Your task to perform on an android device: turn pop-ups off in chrome Image 0: 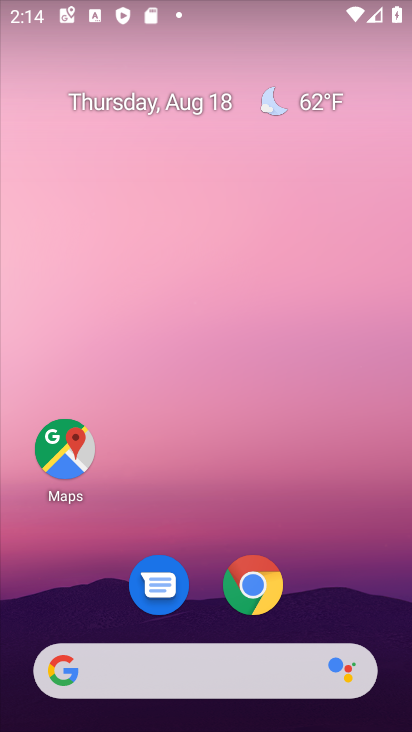
Step 0: click (254, 585)
Your task to perform on an android device: turn pop-ups off in chrome Image 1: 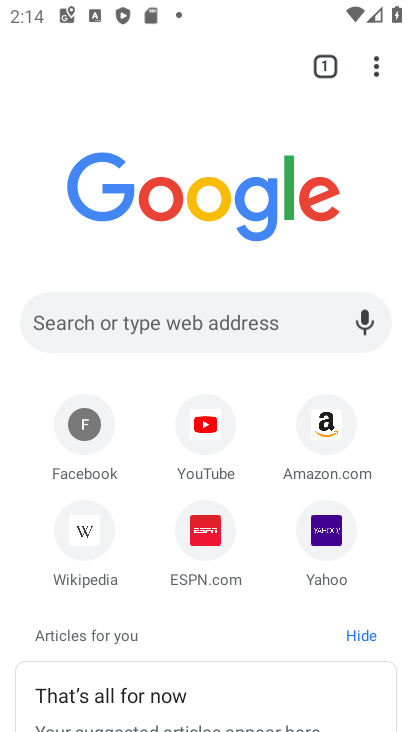
Step 1: click (376, 77)
Your task to perform on an android device: turn pop-ups off in chrome Image 2: 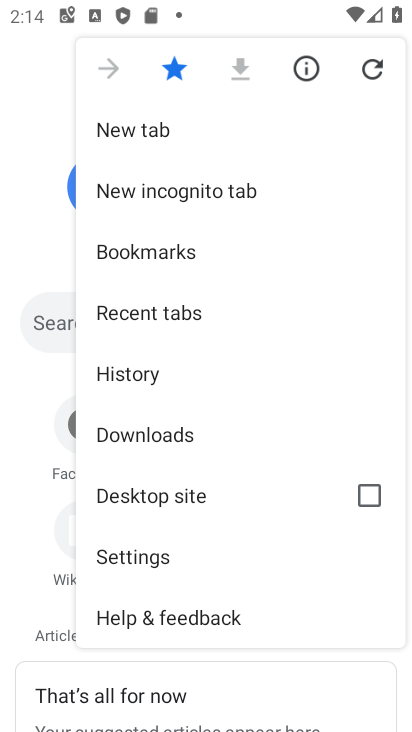
Step 2: click (188, 546)
Your task to perform on an android device: turn pop-ups off in chrome Image 3: 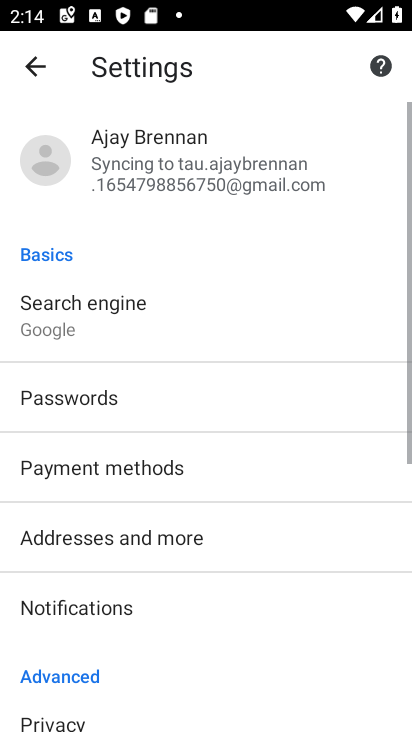
Step 3: drag from (189, 541) to (251, 0)
Your task to perform on an android device: turn pop-ups off in chrome Image 4: 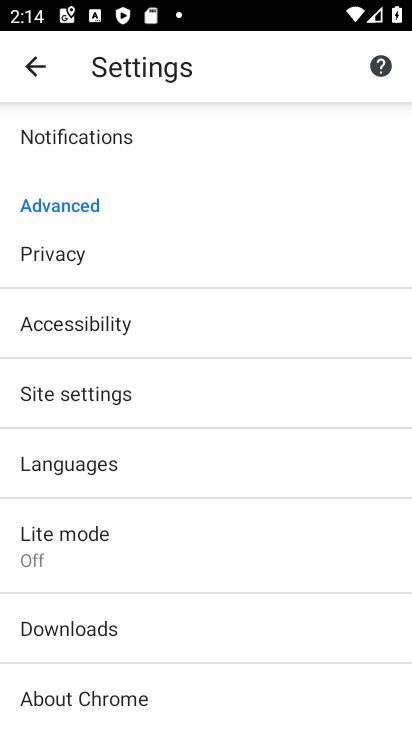
Step 4: click (124, 388)
Your task to perform on an android device: turn pop-ups off in chrome Image 5: 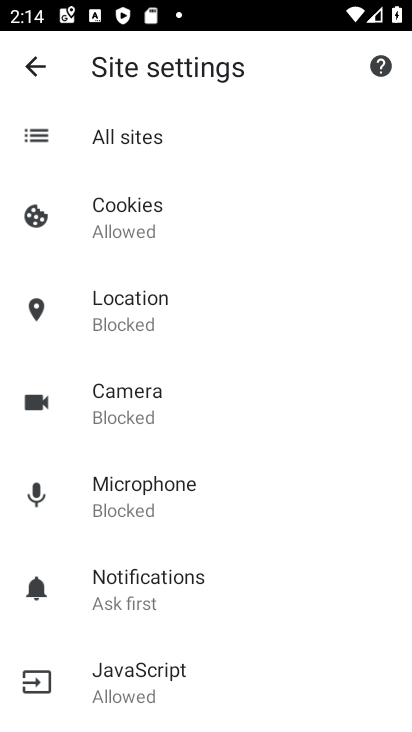
Step 5: drag from (258, 490) to (300, 156)
Your task to perform on an android device: turn pop-ups off in chrome Image 6: 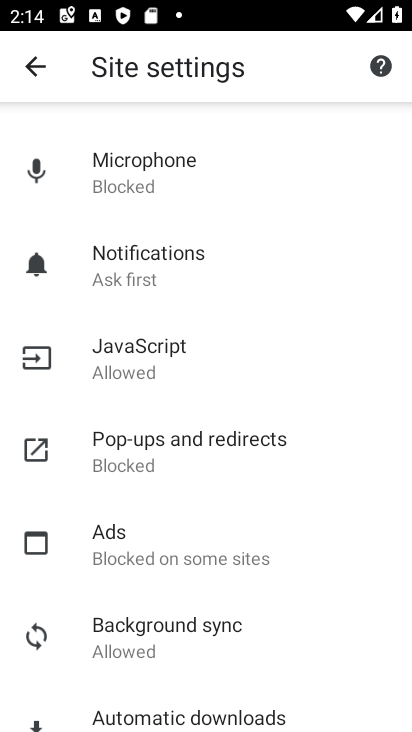
Step 6: click (249, 448)
Your task to perform on an android device: turn pop-ups off in chrome Image 7: 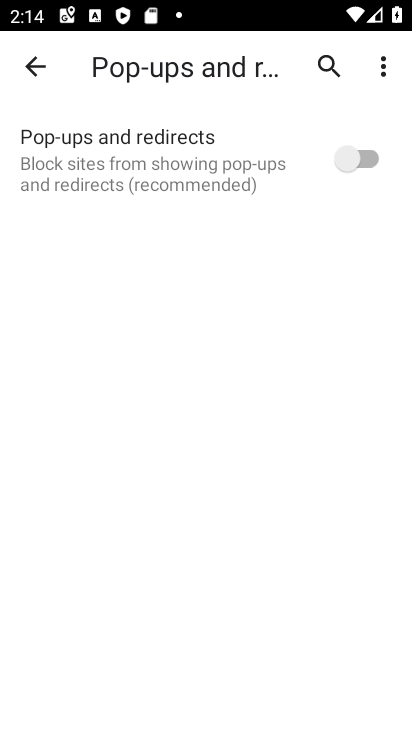
Step 7: task complete